Your task to perform on an android device: change the clock style Image 0: 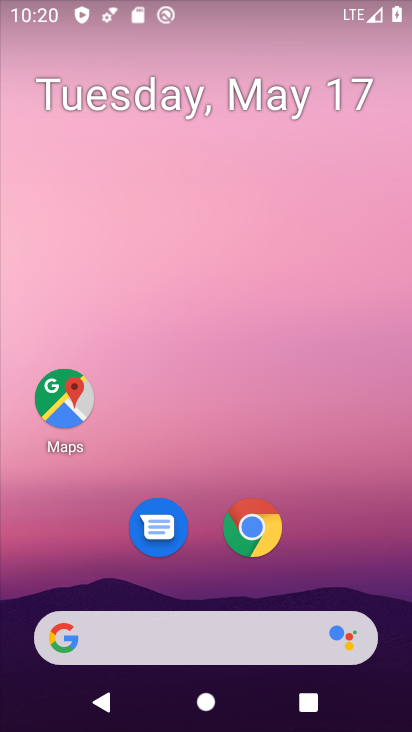
Step 0: drag from (91, 600) to (209, 177)
Your task to perform on an android device: change the clock style Image 1: 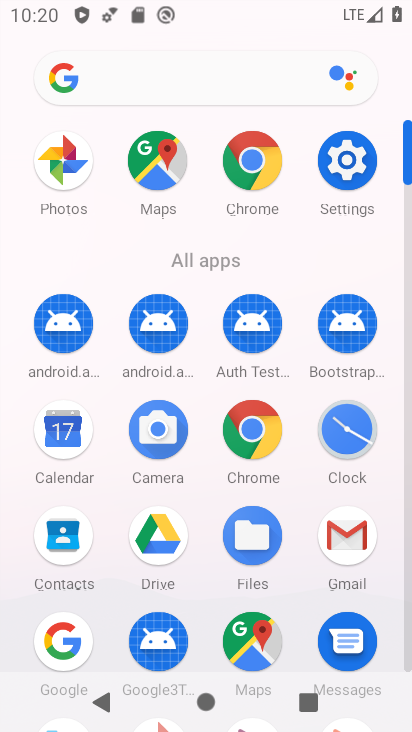
Step 1: click (357, 436)
Your task to perform on an android device: change the clock style Image 2: 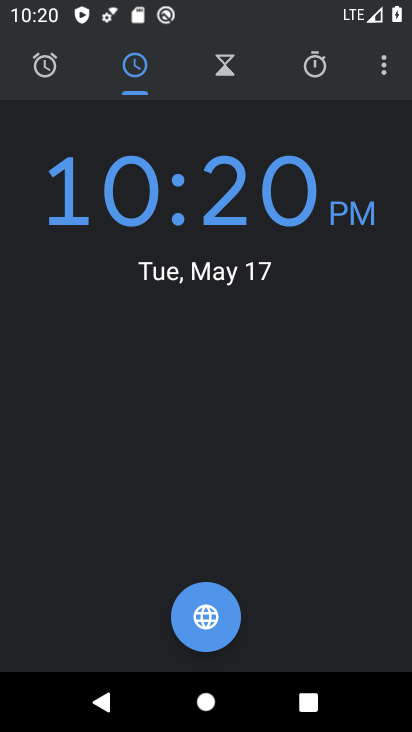
Step 2: click (380, 62)
Your task to perform on an android device: change the clock style Image 3: 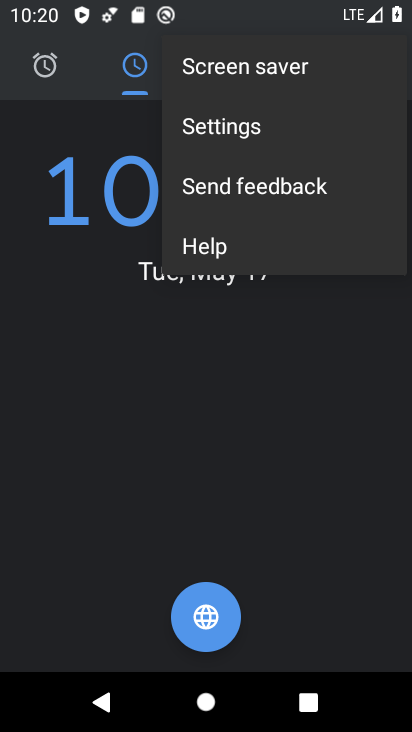
Step 3: click (335, 125)
Your task to perform on an android device: change the clock style Image 4: 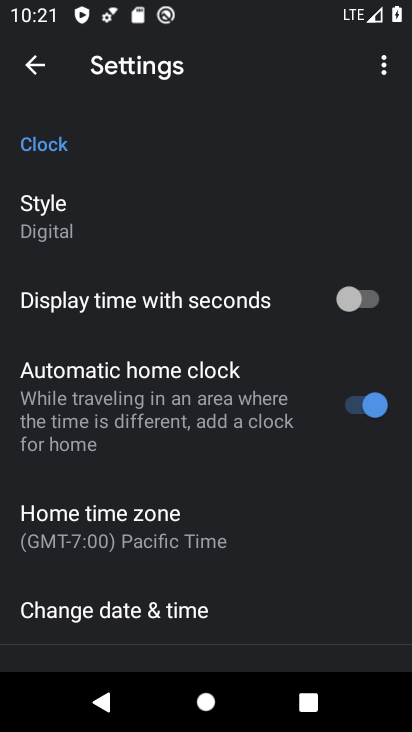
Step 4: click (137, 227)
Your task to perform on an android device: change the clock style Image 5: 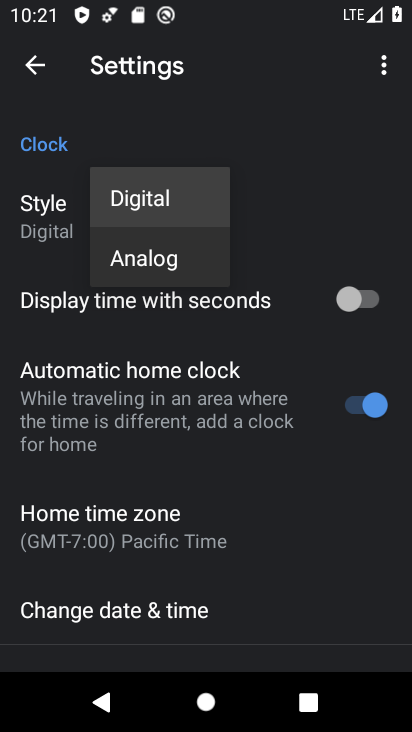
Step 5: click (160, 274)
Your task to perform on an android device: change the clock style Image 6: 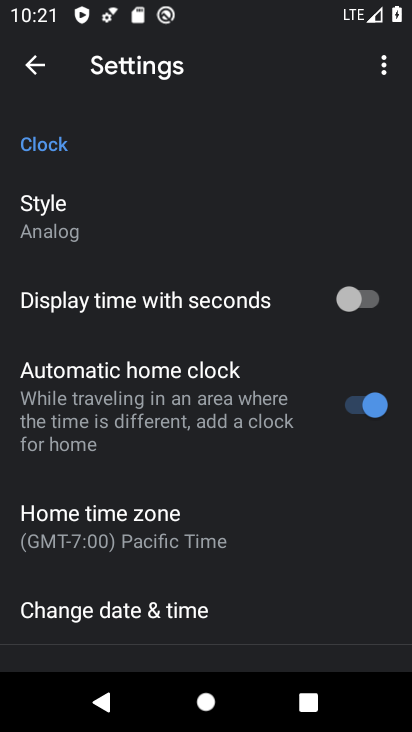
Step 6: task complete